Your task to perform on an android device: open chrome privacy settings Image 0: 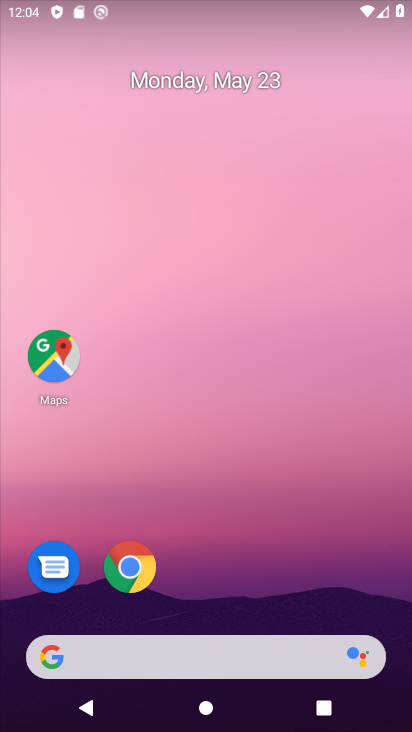
Step 0: click (143, 582)
Your task to perform on an android device: open chrome privacy settings Image 1: 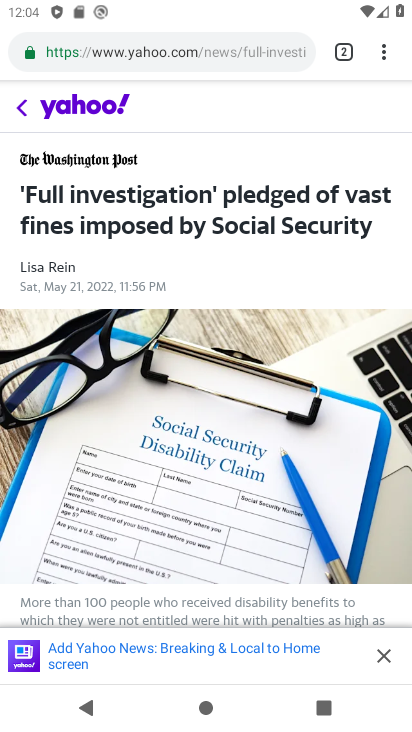
Step 1: click (382, 49)
Your task to perform on an android device: open chrome privacy settings Image 2: 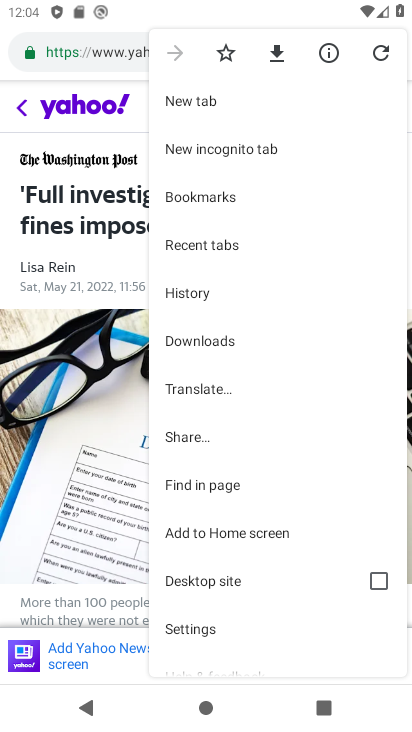
Step 2: drag from (218, 632) to (252, 366)
Your task to perform on an android device: open chrome privacy settings Image 3: 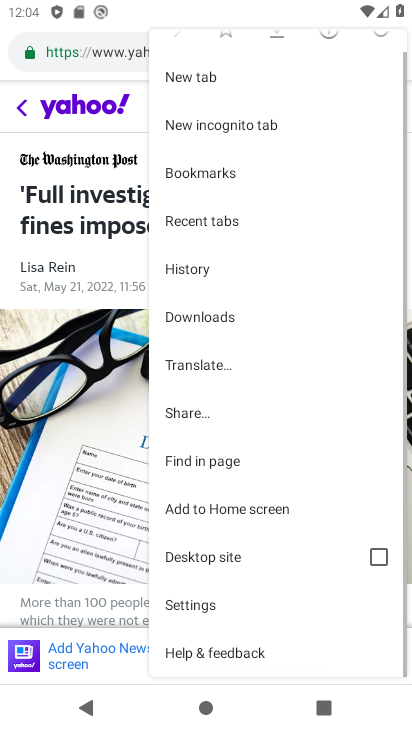
Step 3: click (204, 597)
Your task to perform on an android device: open chrome privacy settings Image 4: 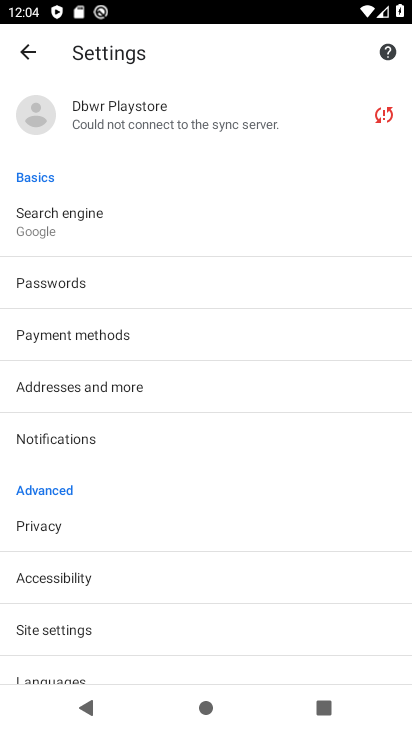
Step 4: click (249, 526)
Your task to perform on an android device: open chrome privacy settings Image 5: 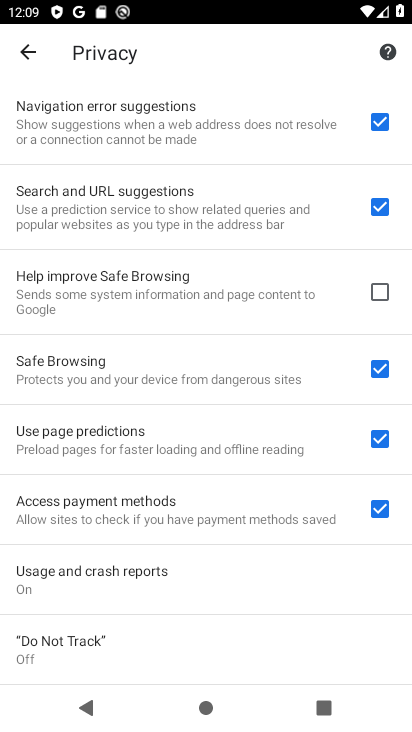
Step 5: task complete